Your task to perform on an android device: Go to ESPN.com Image 0: 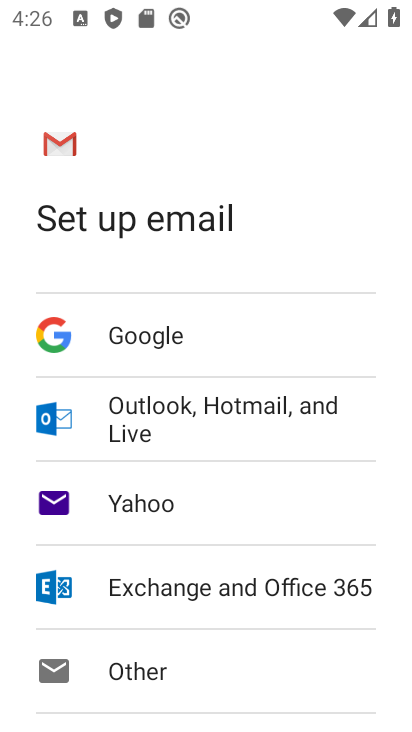
Step 0: press home button
Your task to perform on an android device: Go to ESPN.com Image 1: 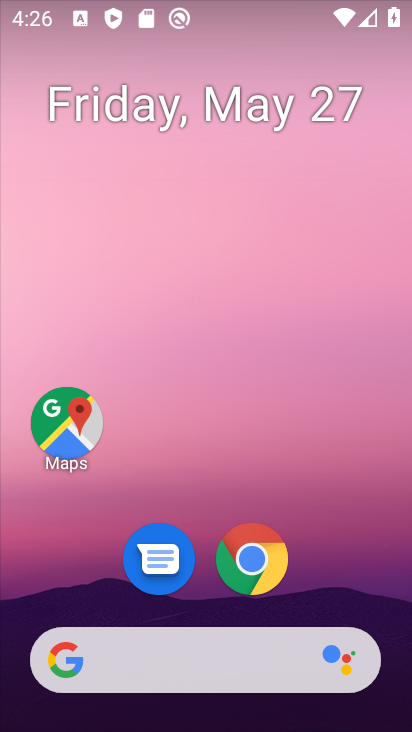
Step 1: click (248, 557)
Your task to perform on an android device: Go to ESPN.com Image 2: 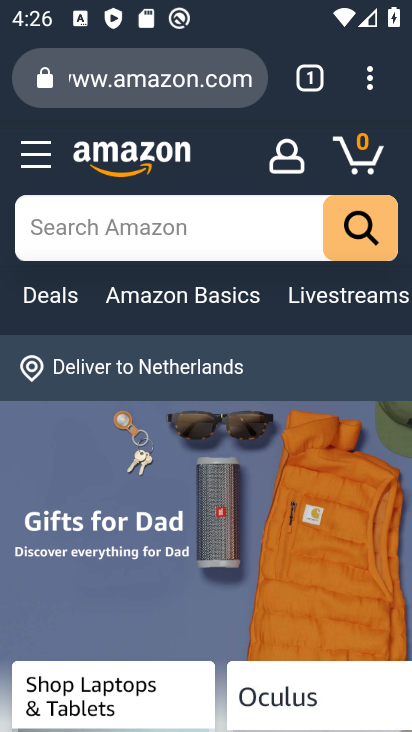
Step 2: click (311, 74)
Your task to perform on an android device: Go to ESPN.com Image 3: 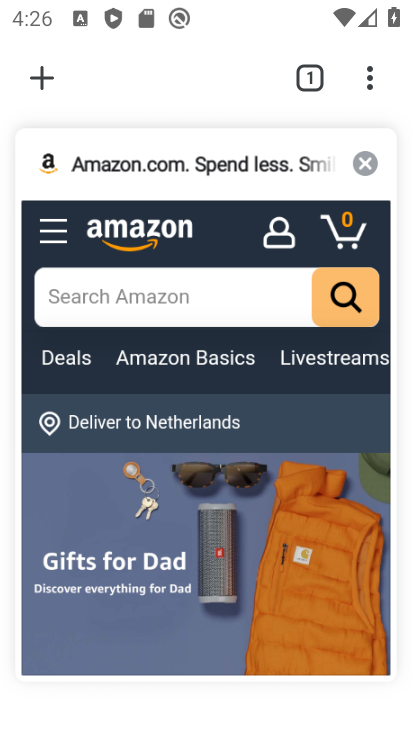
Step 3: click (32, 78)
Your task to perform on an android device: Go to ESPN.com Image 4: 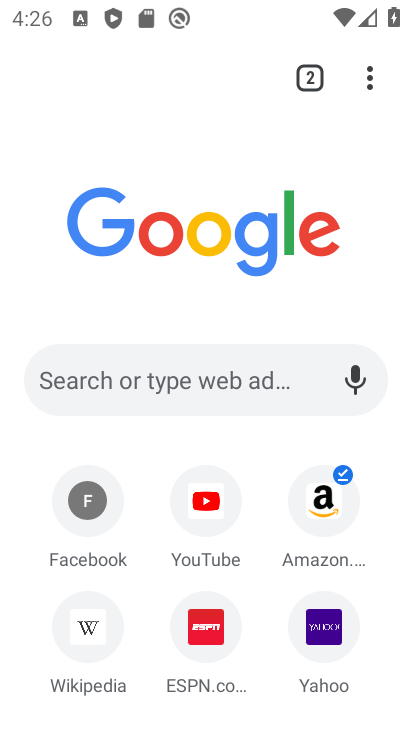
Step 4: click (202, 656)
Your task to perform on an android device: Go to ESPN.com Image 5: 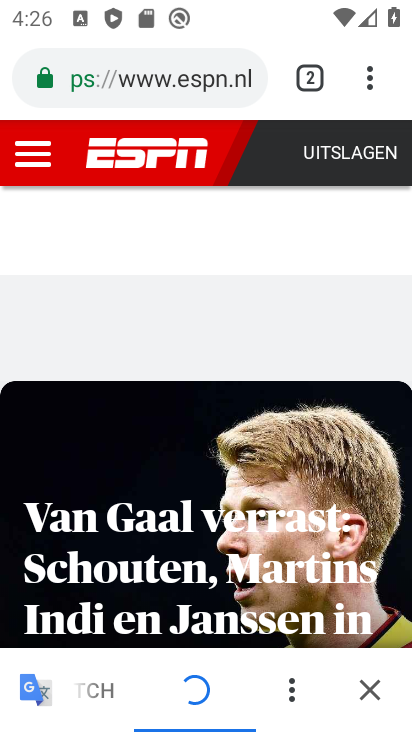
Step 5: task complete